Your task to perform on an android device: turn off airplane mode Image 0: 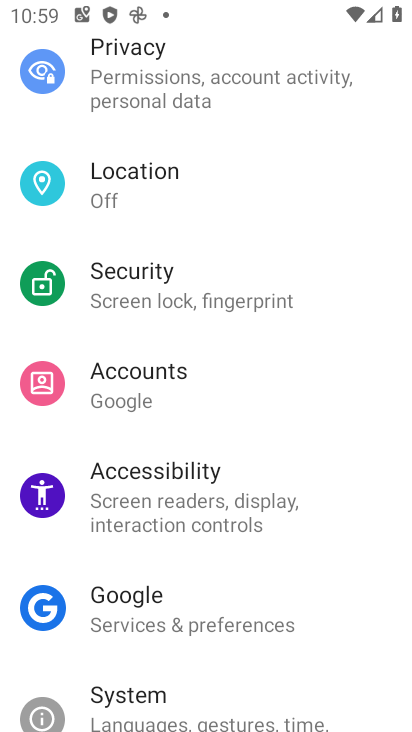
Step 0: press home button
Your task to perform on an android device: turn off airplane mode Image 1: 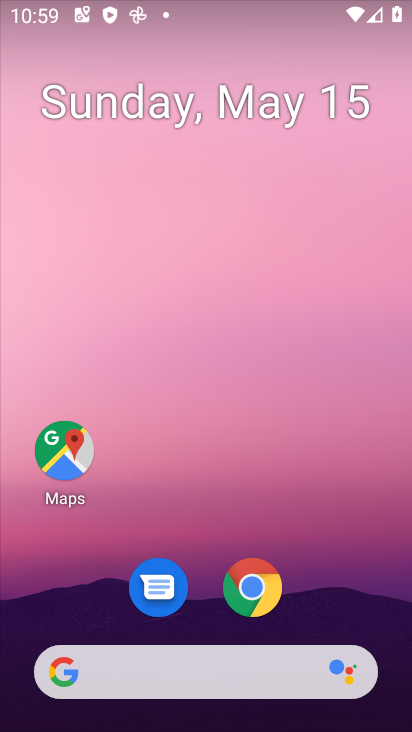
Step 1: task complete